Your task to perform on an android device: What's the weather going to be tomorrow? Image 0: 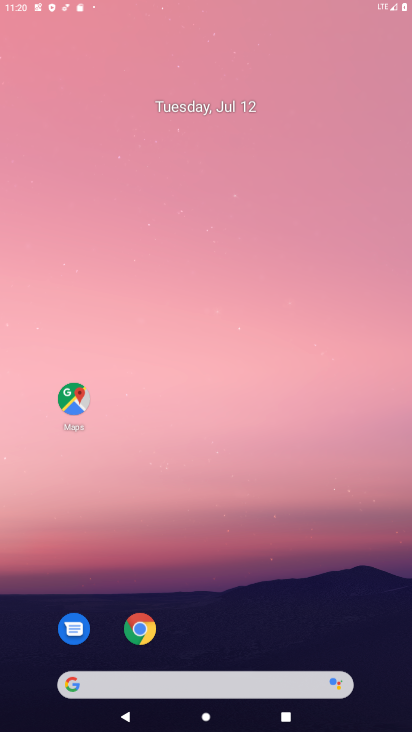
Step 0: press home button
Your task to perform on an android device: What's the weather going to be tomorrow? Image 1: 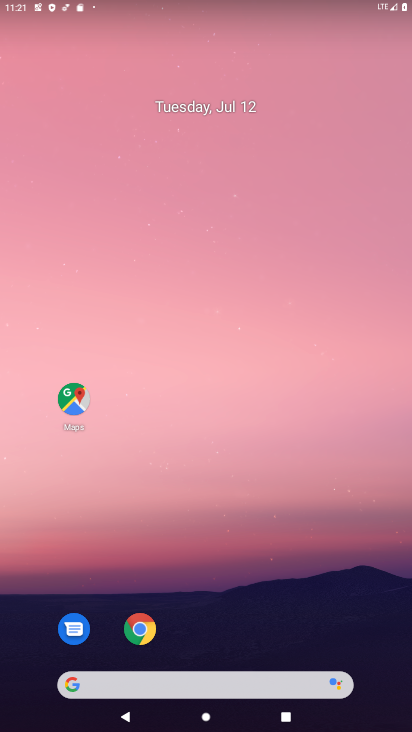
Step 1: click (177, 676)
Your task to perform on an android device: What's the weather going to be tomorrow? Image 2: 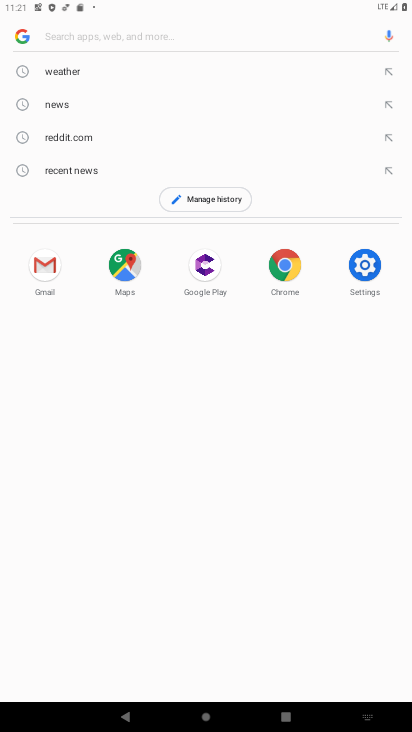
Step 2: click (84, 65)
Your task to perform on an android device: What's the weather going to be tomorrow? Image 3: 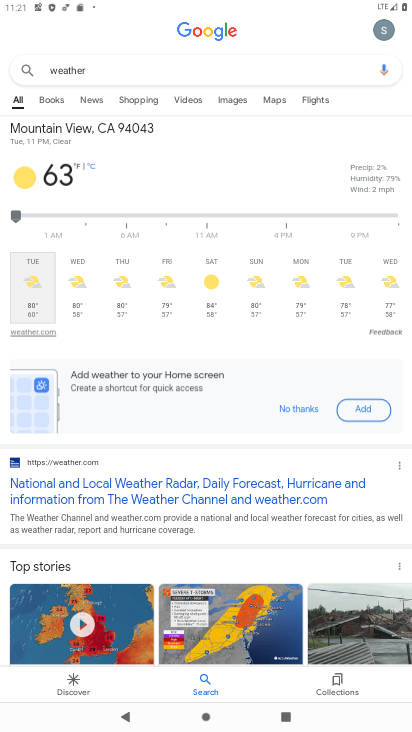
Step 3: click (85, 279)
Your task to perform on an android device: What's the weather going to be tomorrow? Image 4: 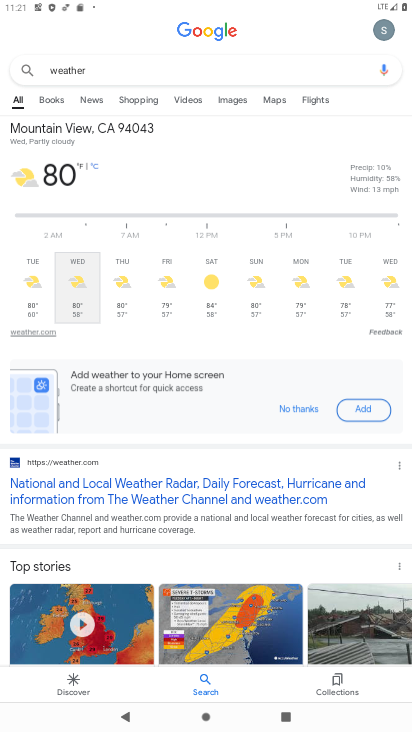
Step 4: task complete